Your task to perform on an android device: What's the weather going to be tomorrow? Image 0: 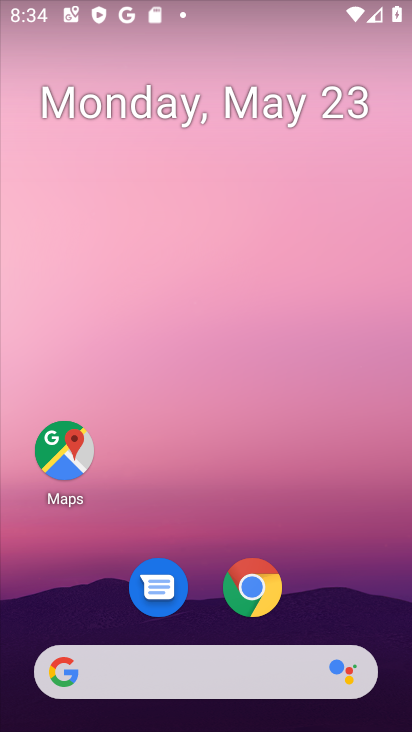
Step 0: click (163, 673)
Your task to perform on an android device: What's the weather going to be tomorrow? Image 1: 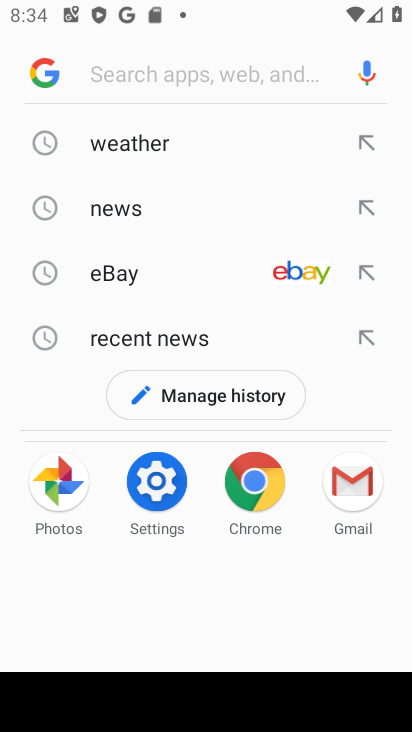
Step 1: click (119, 141)
Your task to perform on an android device: What's the weather going to be tomorrow? Image 2: 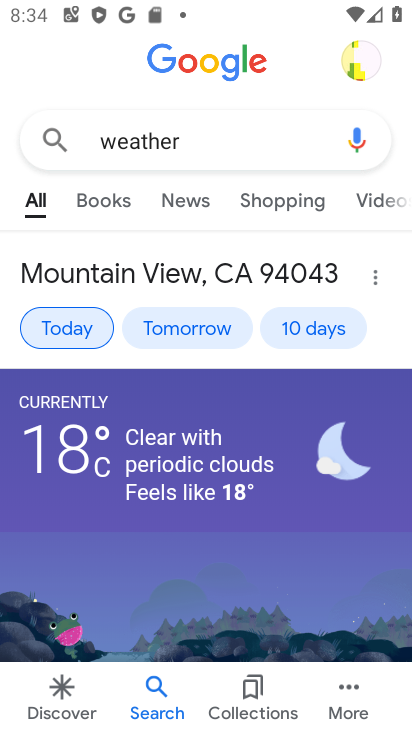
Step 2: click (202, 326)
Your task to perform on an android device: What's the weather going to be tomorrow? Image 3: 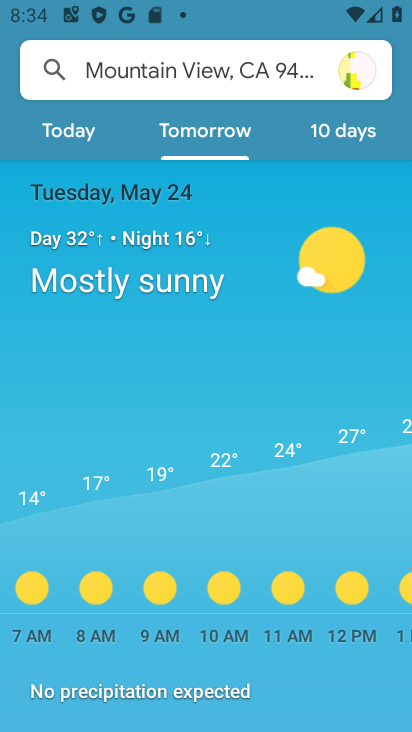
Step 3: task complete